Your task to perform on an android device: turn on notifications settings in the gmail app Image 0: 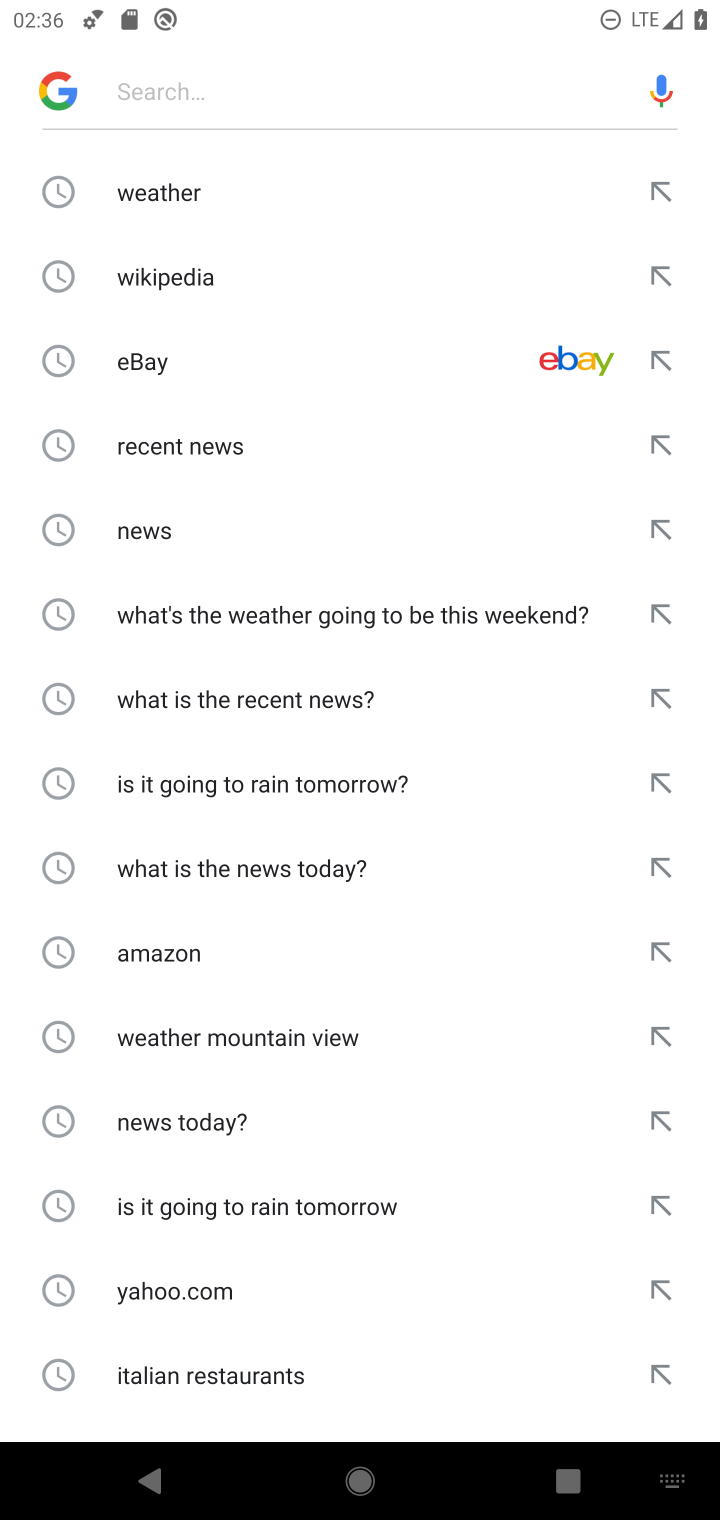
Step 0: press home button
Your task to perform on an android device: turn on notifications settings in the gmail app Image 1: 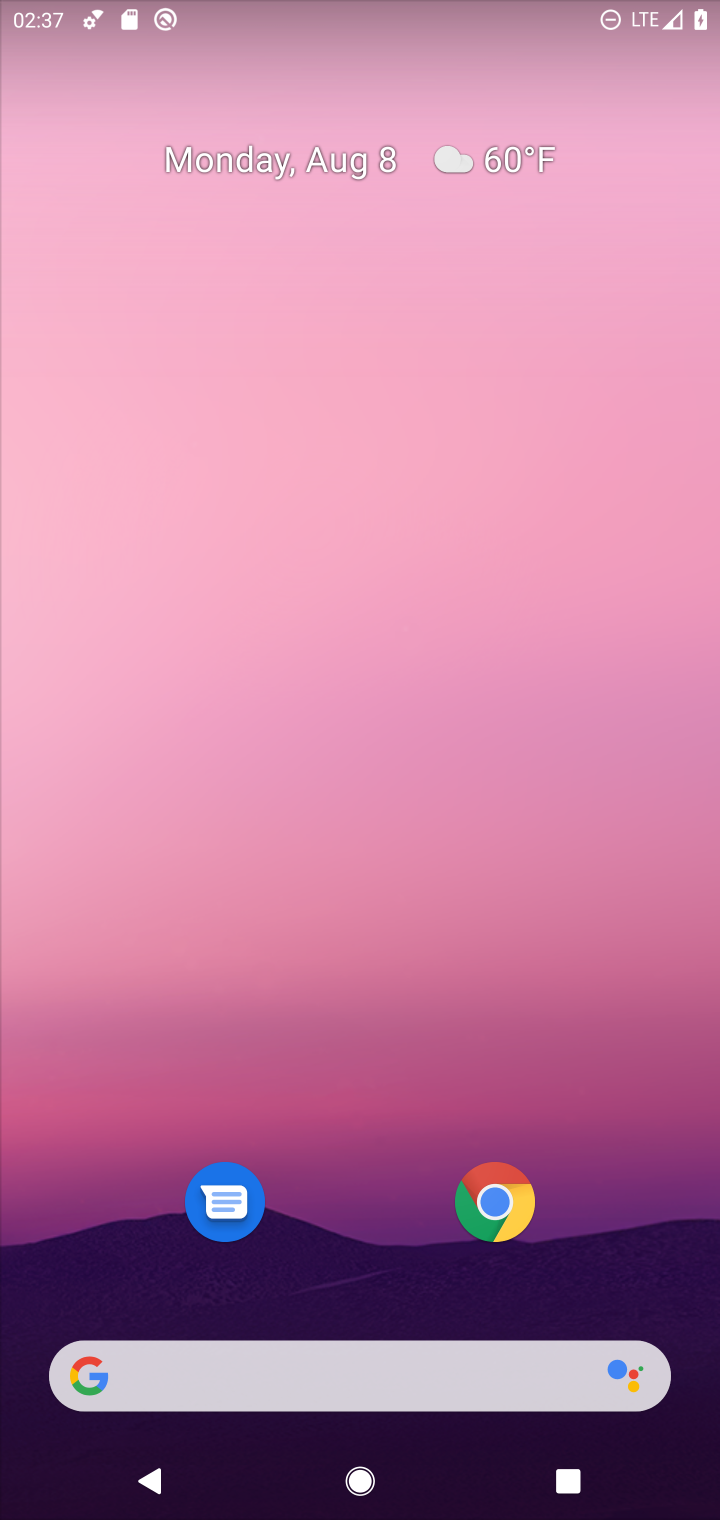
Step 1: drag from (397, 1118) to (419, 246)
Your task to perform on an android device: turn on notifications settings in the gmail app Image 2: 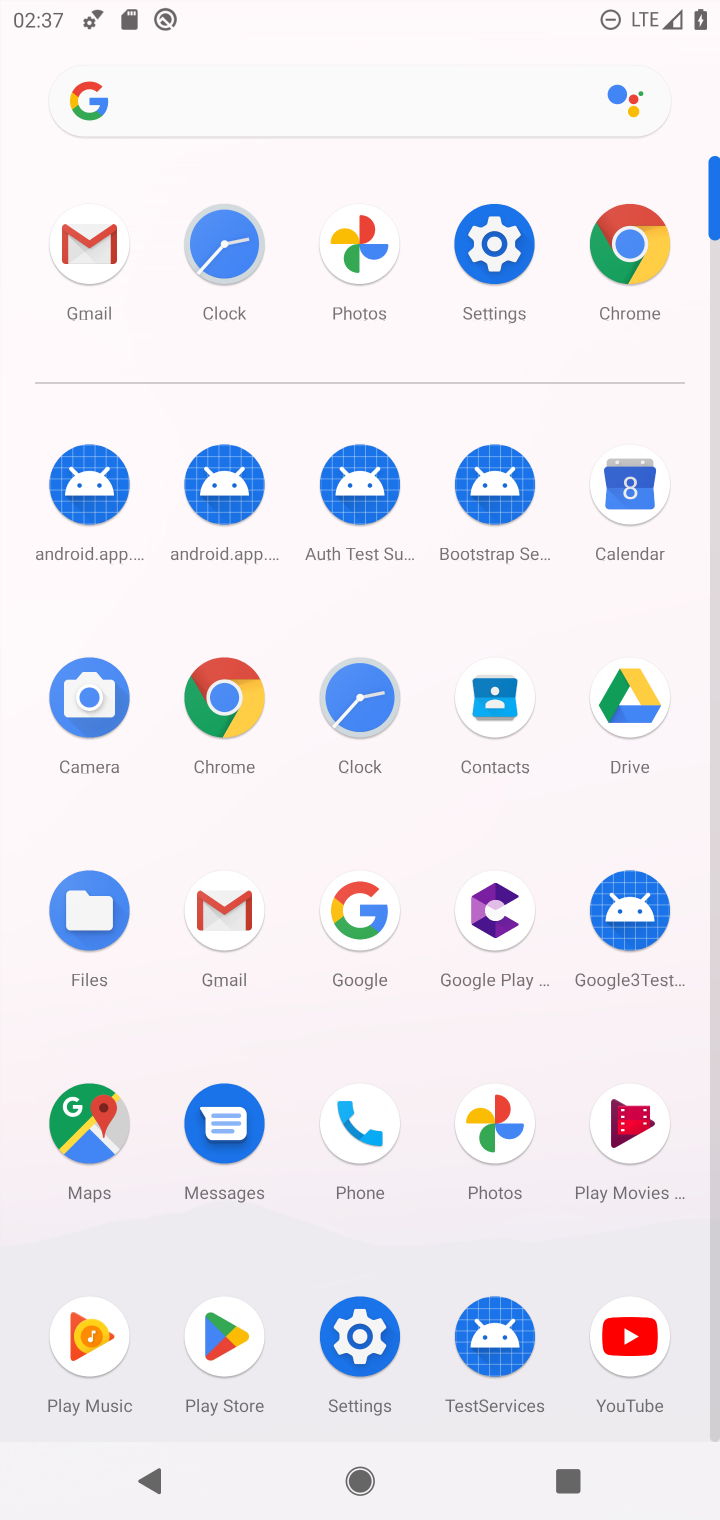
Step 2: click (218, 917)
Your task to perform on an android device: turn on notifications settings in the gmail app Image 3: 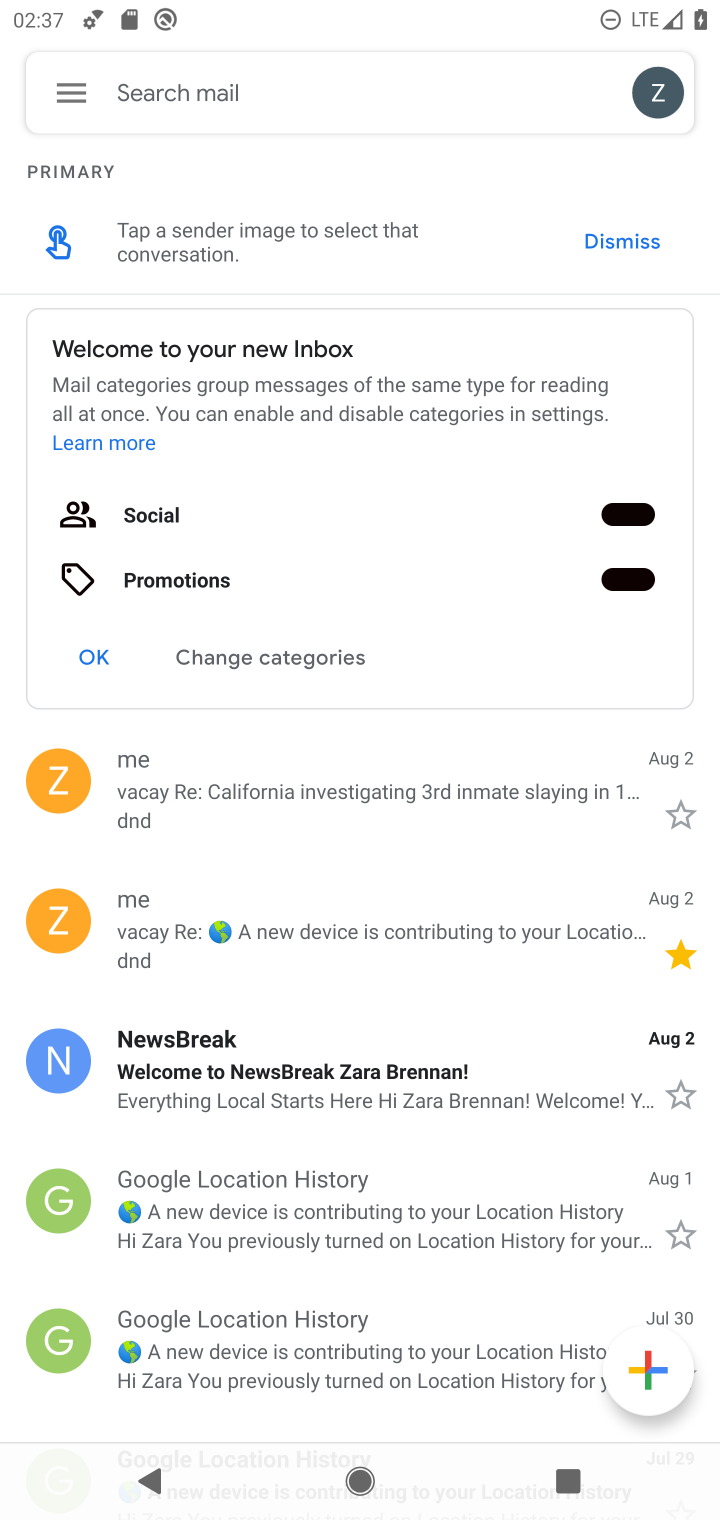
Step 3: click (60, 85)
Your task to perform on an android device: turn on notifications settings in the gmail app Image 4: 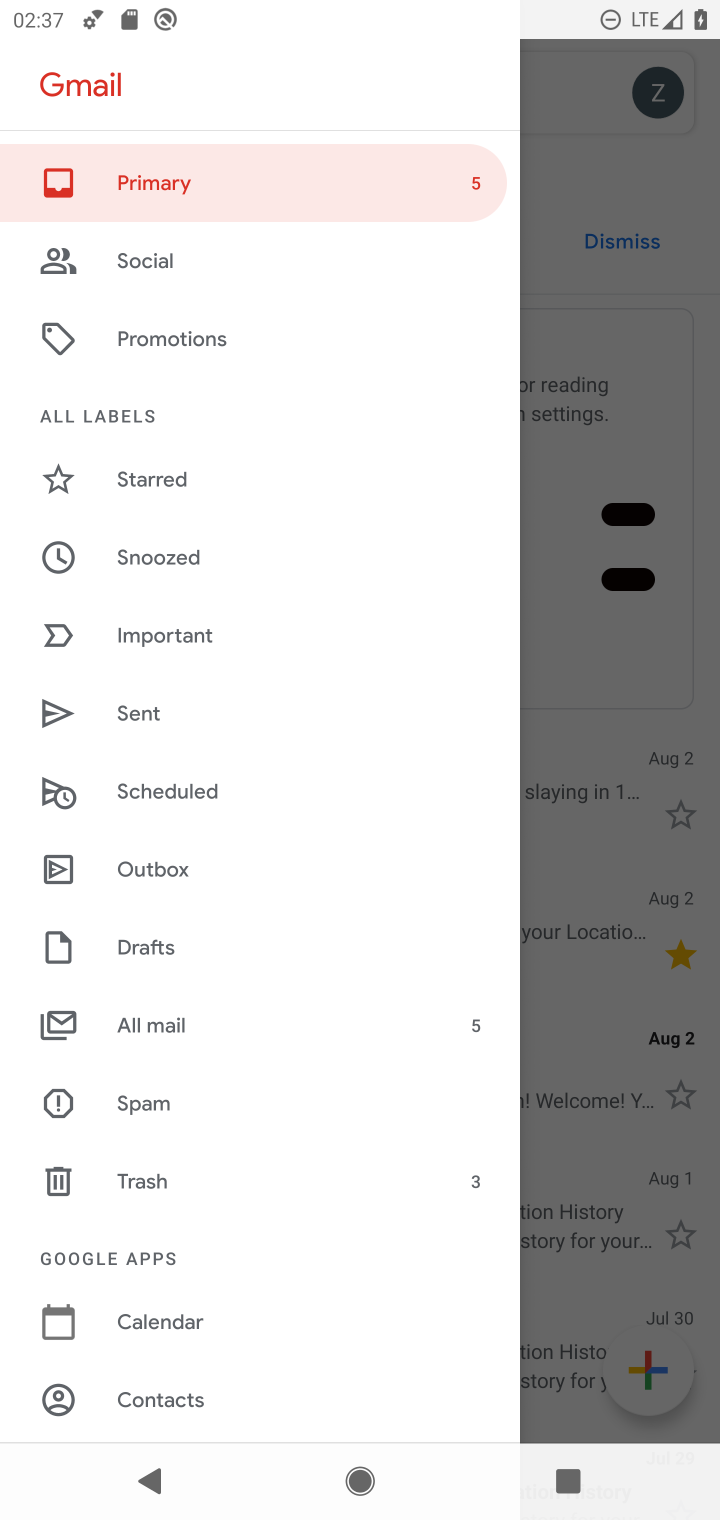
Step 4: drag from (364, 1039) to (370, 851)
Your task to perform on an android device: turn on notifications settings in the gmail app Image 5: 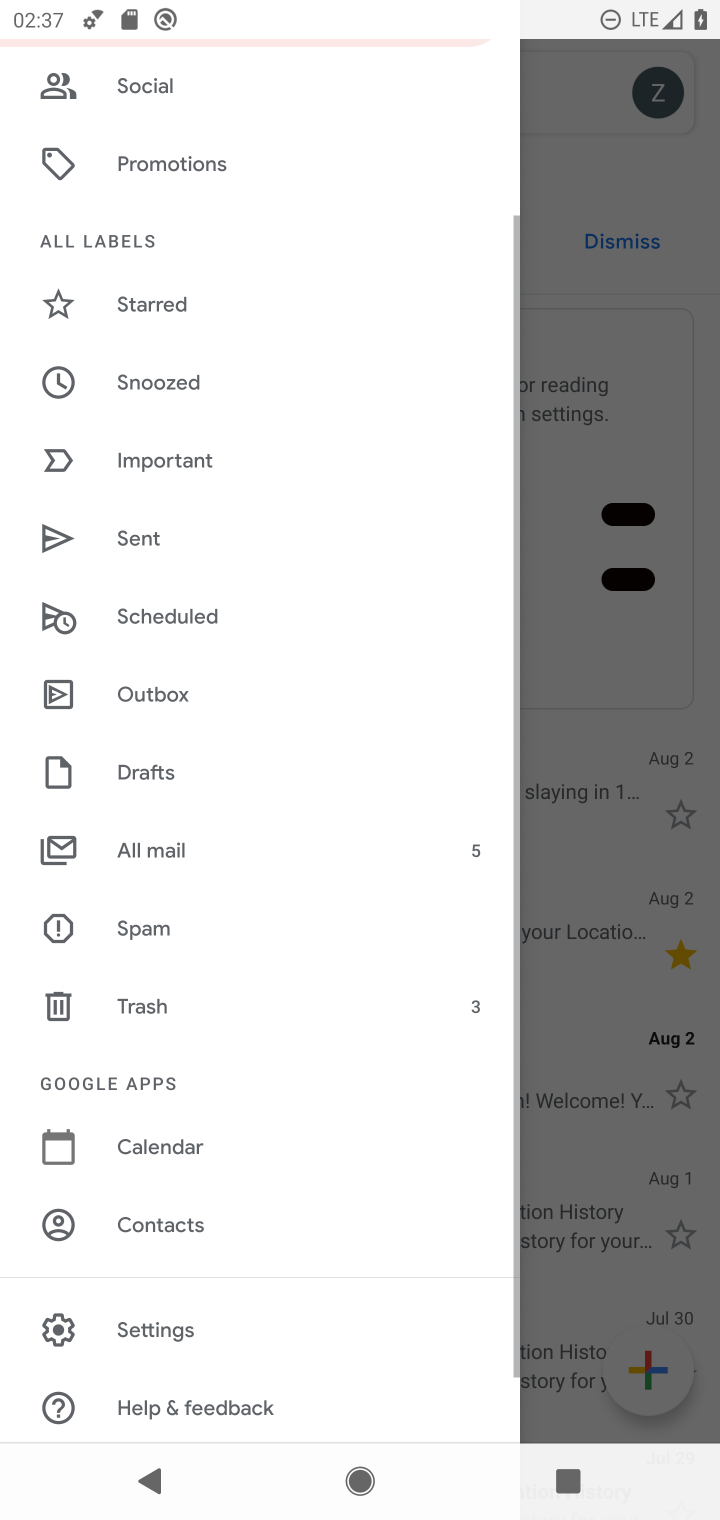
Step 5: drag from (321, 1092) to (358, 886)
Your task to perform on an android device: turn on notifications settings in the gmail app Image 6: 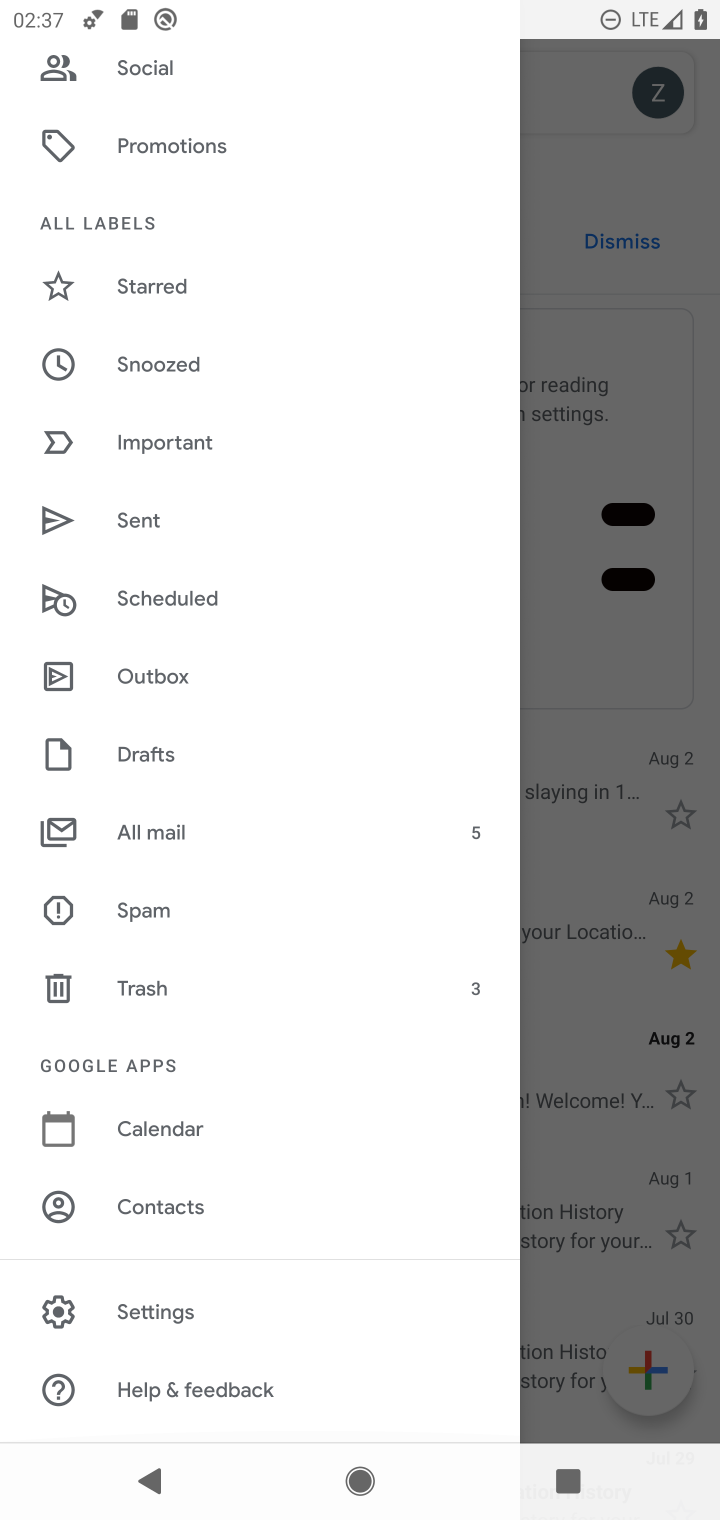
Step 6: click (298, 1313)
Your task to perform on an android device: turn on notifications settings in the gmail app Image 7: 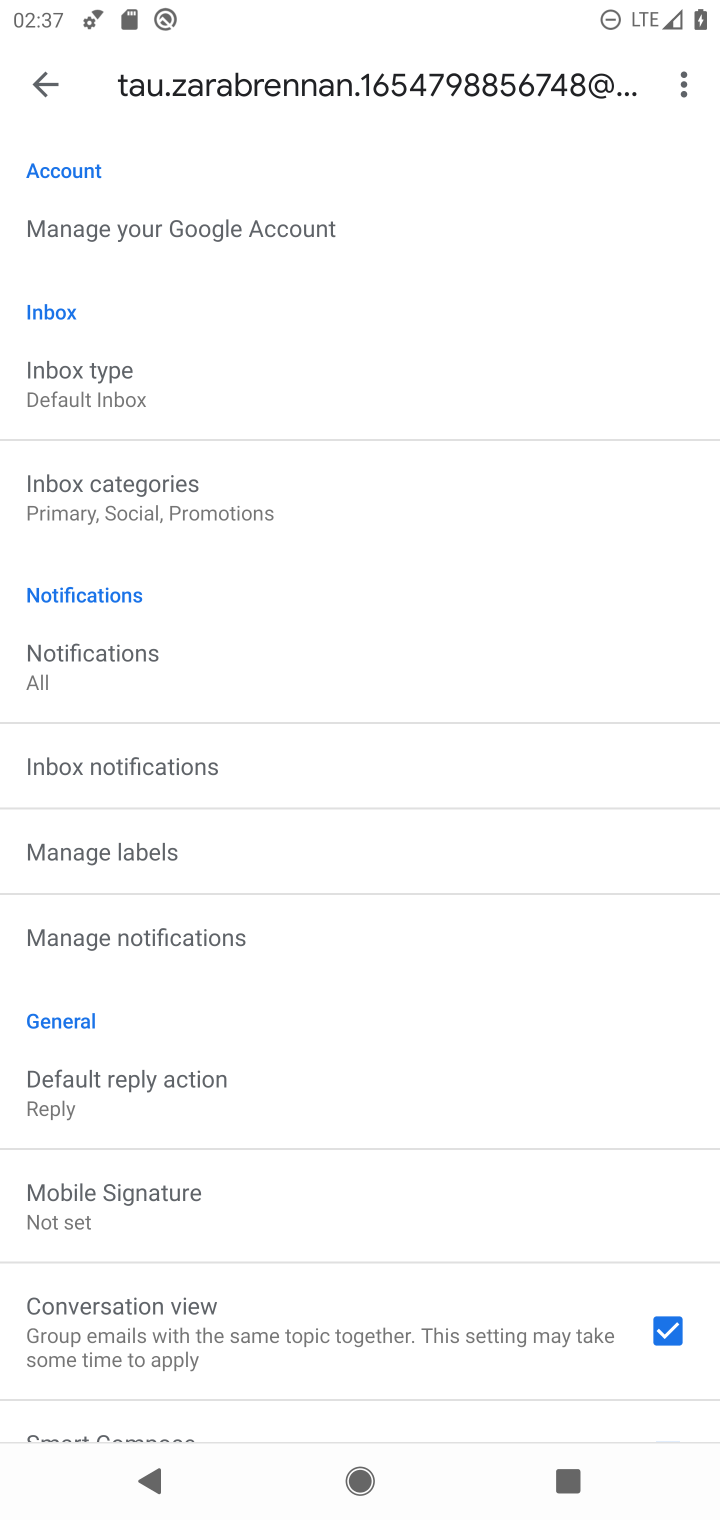
Step 7: drag from (361, 1007) to (382, 853)
Your task to perform on an android device: turn on notifications settings in the gmail app Image 8: 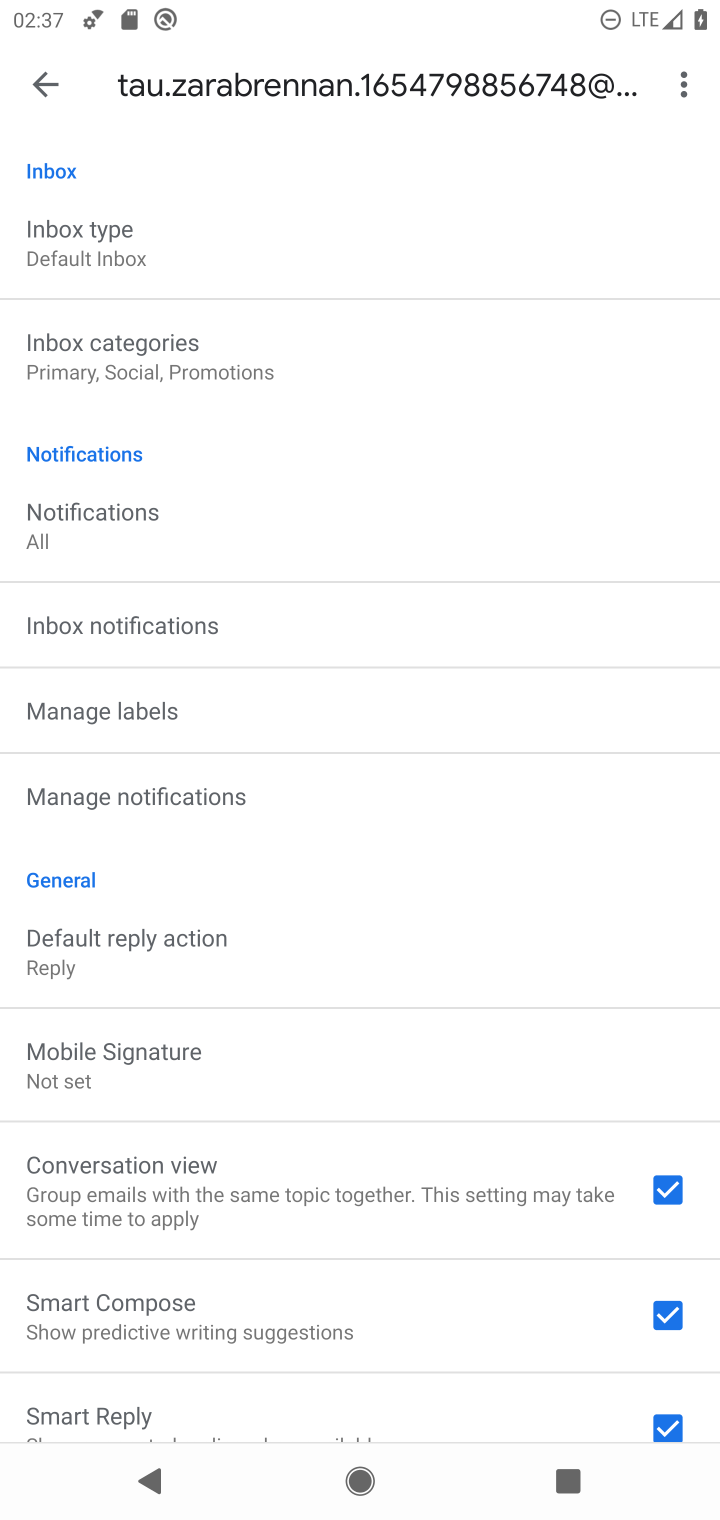
Step 8: drag from (396, 924) to (424, 668)
Your task to perform on an android device: turn on notifications settings in the gmail app Image 9: 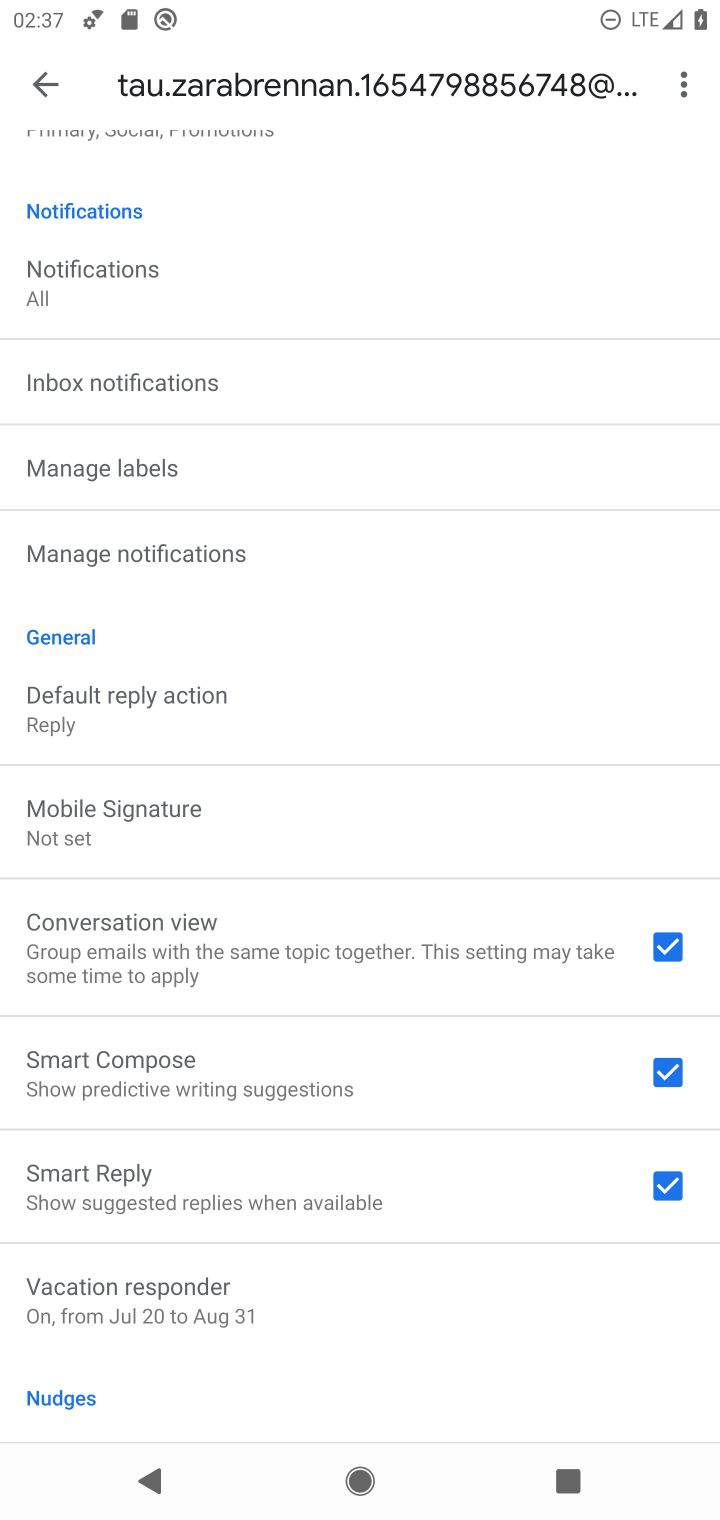
Step 9: drag from (418, 753) to (448, 486)
Your task to perform on an android device: turn on notifications settings in the gmail app Image 10: 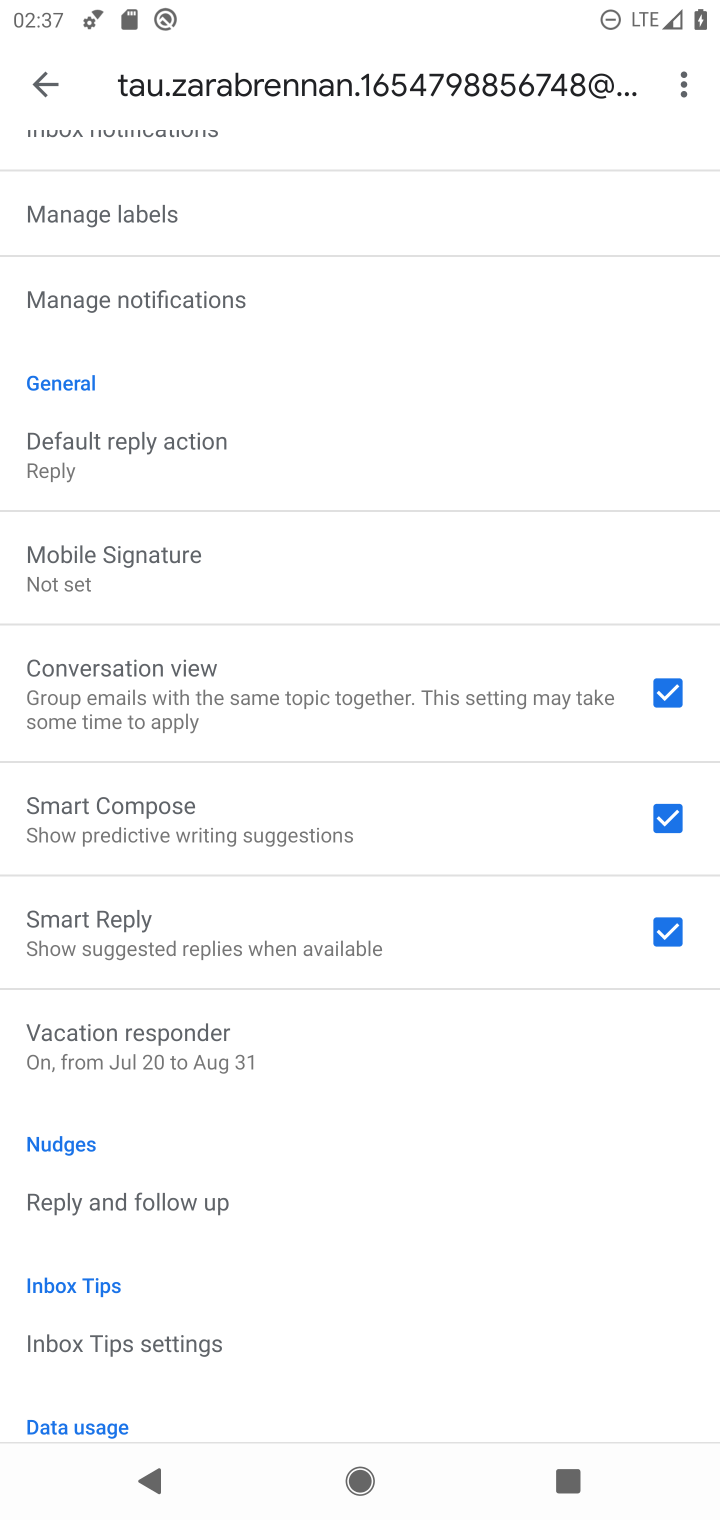
Step 10: click (269, 293)
Your task to perform on an android device: turn on notifications settings in the gmail app Image 11: 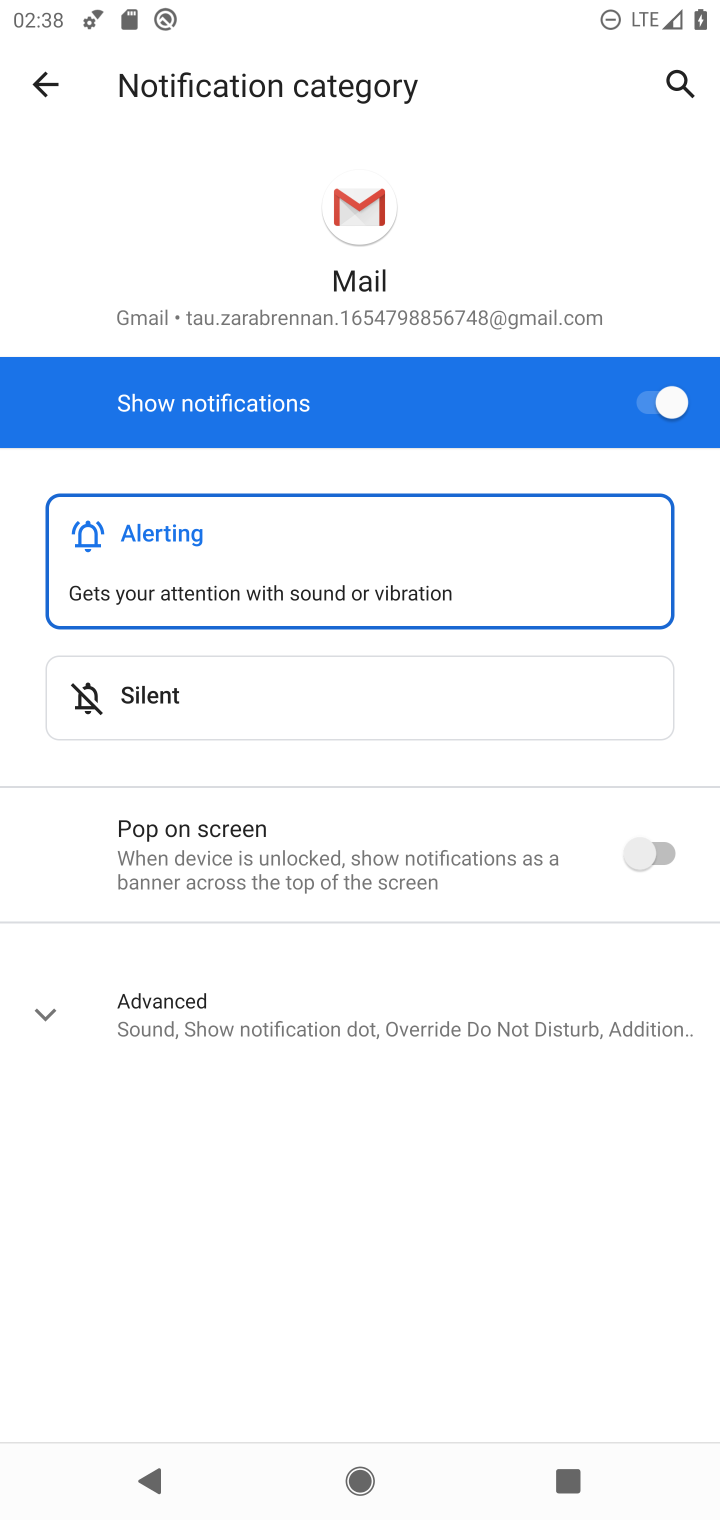
Step 11: task complete